Your task to perform on an android device: turn on improve location accuracy Image 0: 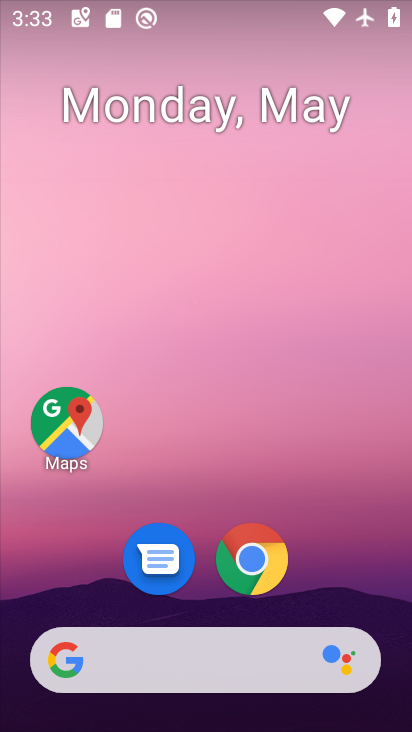
Step 0: drag from (325, 597) to (305, 125)
Your task to perform on an android device: turn on improve location accuracy Image 1: 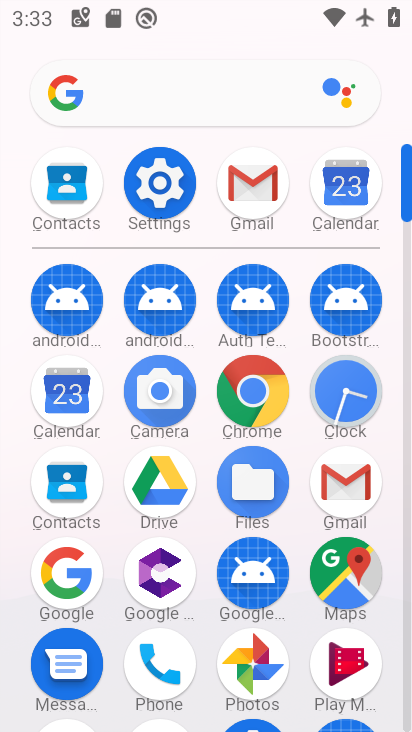
Step 1: click (160, 196)
Your task to perform on an android device: turn on improve location accuracy Image 2: 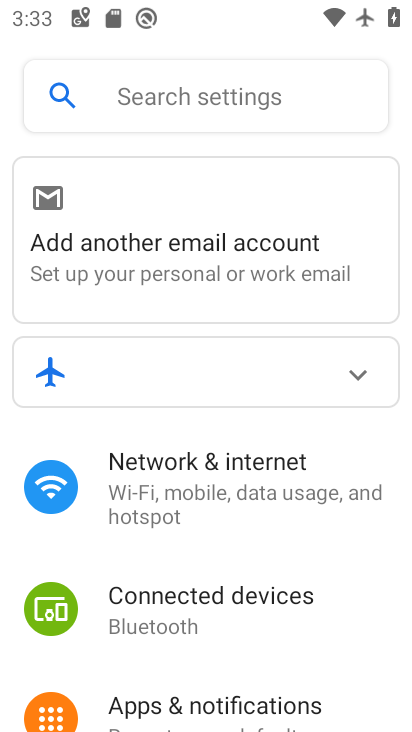
Step 2: drag from (199, 640) to (210, 279)
Your task to perform on an android device: turn on improve location accuracy Image 3: 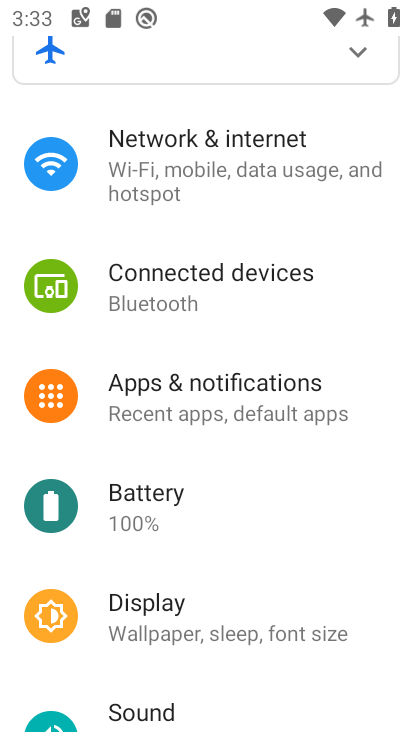
Step 3: drag from (196, 647) to (222, 393)
Your task to perform on an android device: turn on improve location accuracy Image 4: 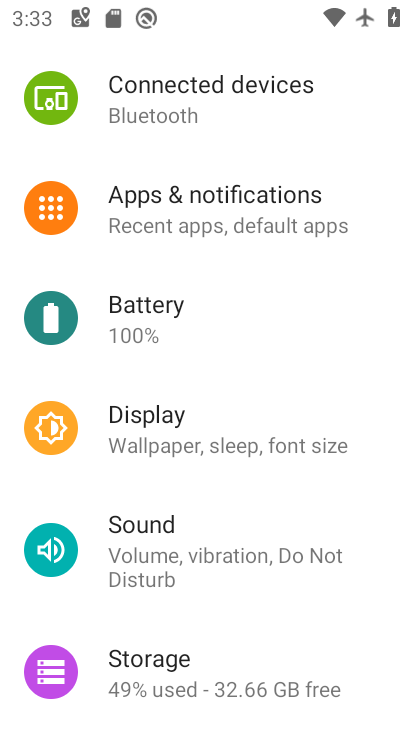
Step 4: drag from (147, 603) to (226, 360)
Your task to perform on an android device: turn on improve location accuracy Image 5: 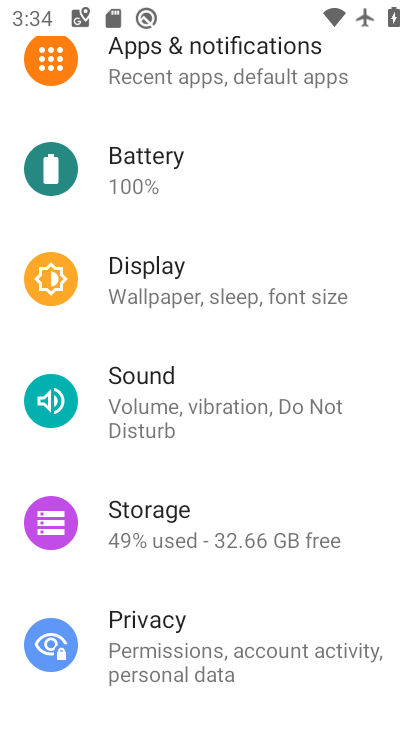
Step 5: drag from (182, 544) to (214, 321)
Your task to perform on an android device: turn on improve location accuracy Image 6: 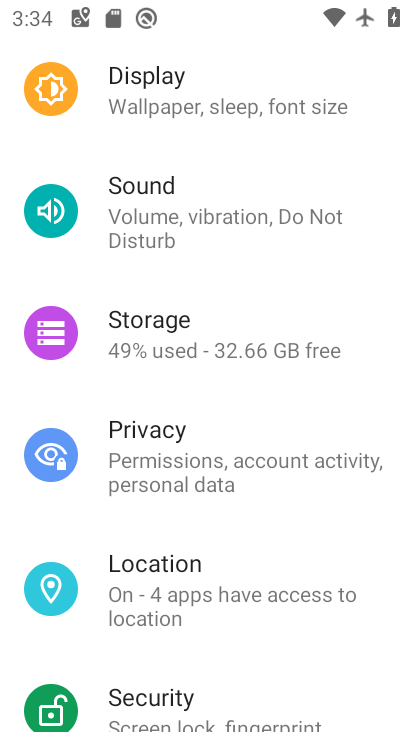
Step 6: click (163, 586)
Your task to perform on an android device: turn on improve location accuracy Image 7: 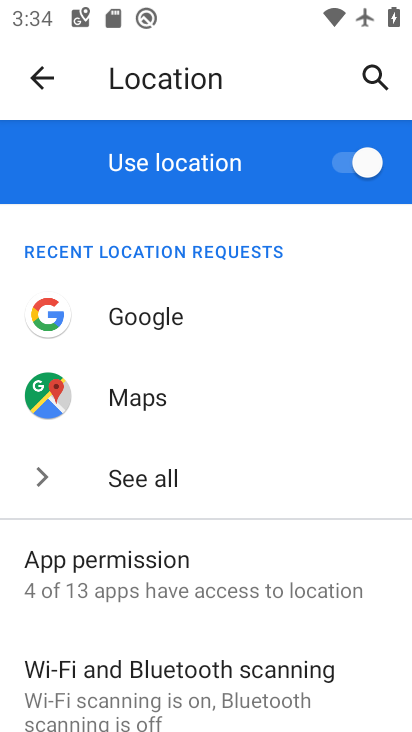
Step 7: click (33, 79)
Your task to perform on an android device: turn on improve location accuracy Image 8: 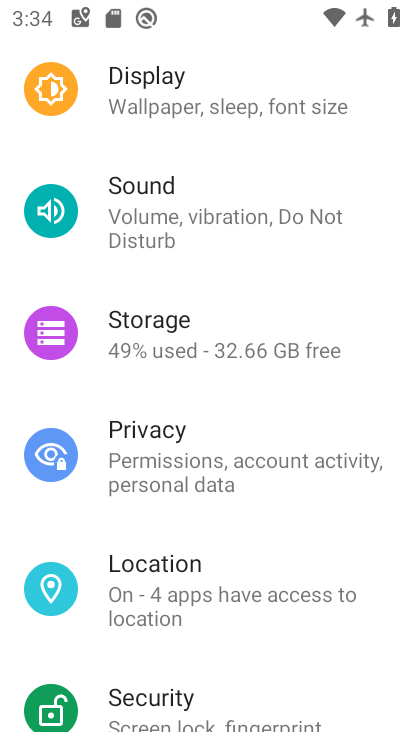
Step 8: click (180, 569)
Your task to perform on an android device: turn on improve location accuracy Image 9: 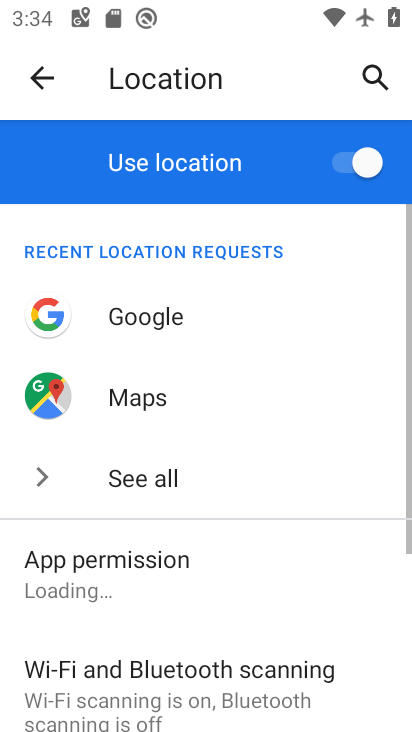
Step 9: drag from (201, 611) to (254, 296)
Your task to perform on an android device: turn on improve location accuracy Image 10: 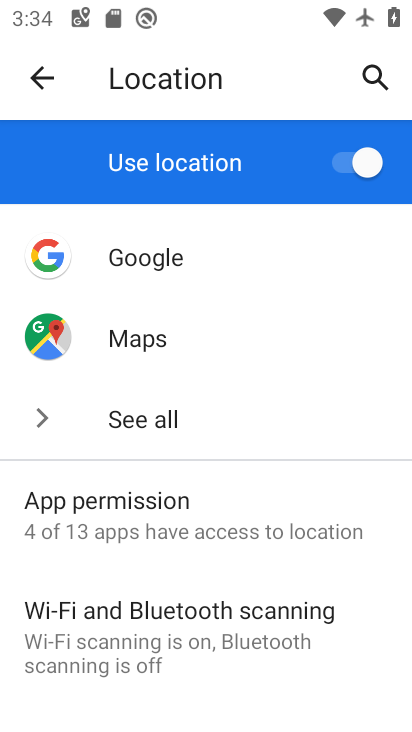
Step 10: drag from (228, 671) to (260, 428)
Your task to perform on an android device: turn on improve location accuracy Image 11: 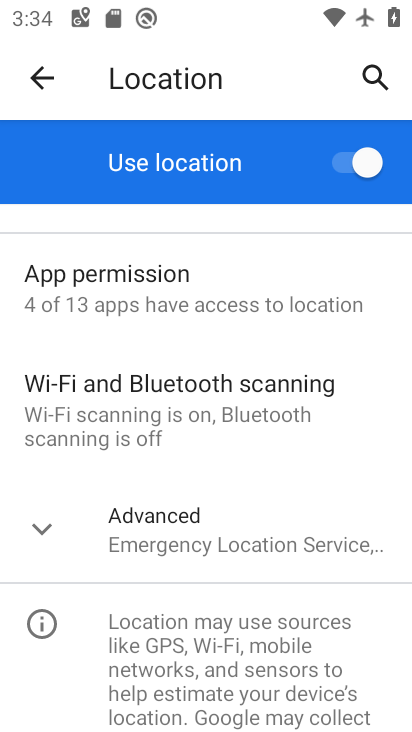
Step 11: click (190, 548)
Your task to perform on an android device: turn on improve location accuracy Image 12: 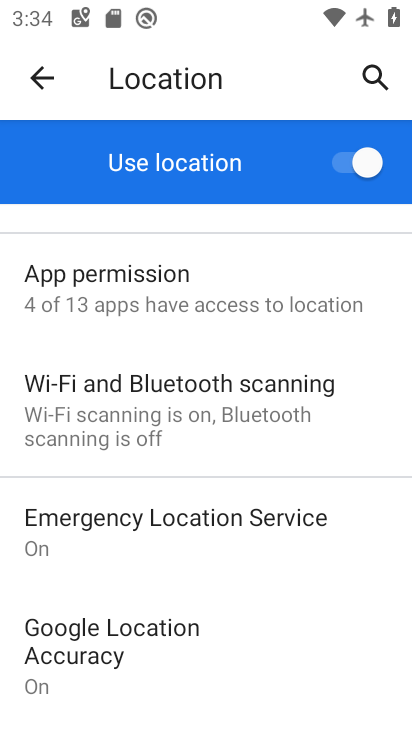
Step 12: click (146, 658)
Your task to perform on an android device: turn on improve location accuracy Image 13: 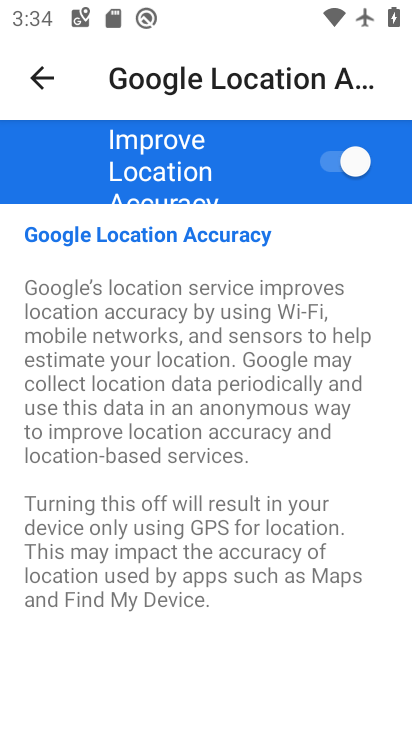
Step 13: task complete